Your task to perform on an android device: open a new tab in the chrome app Image 0: 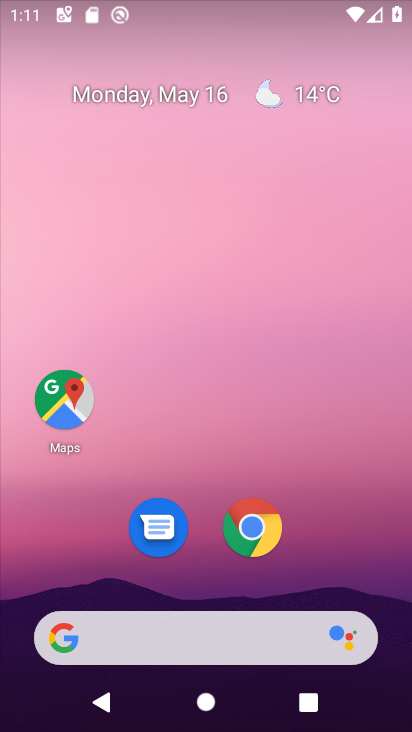
Step 0: click (259, 534)
Your task to perform on an android device: open a new tab in the chrome app Image 1: 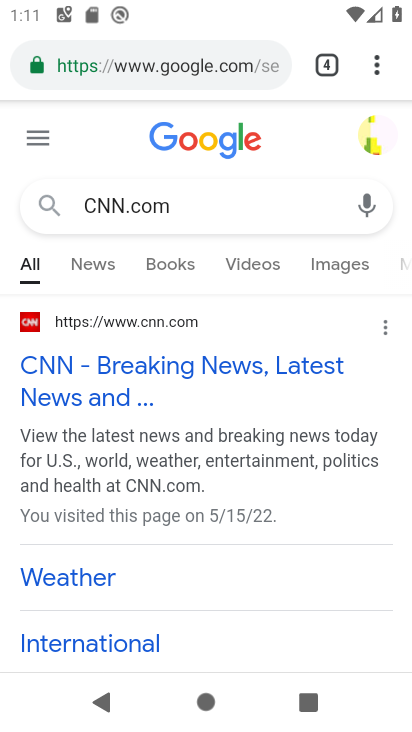
Step 1: click (381, 62)
Your task to perform on an android device: open a new tab in the chrome app Image 2: 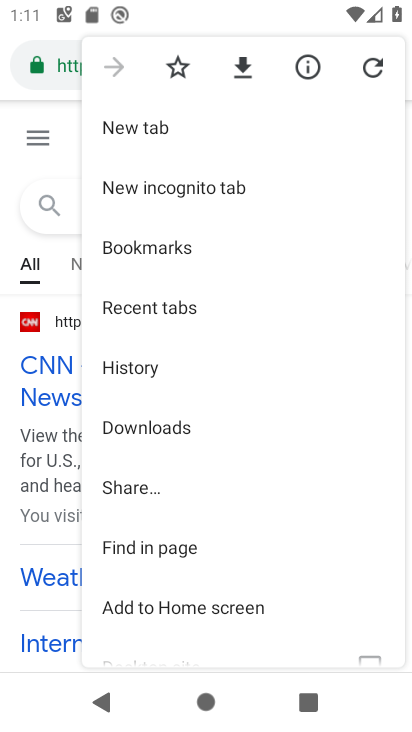
Step 2: click (149, 124)
Your task to perform on an android device: open a new tab in the chrome app Image 3: 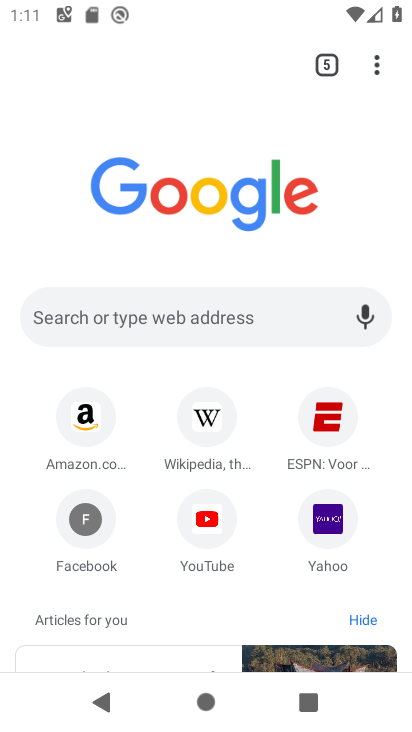
Step 3: task complete